Your task to perform on an android device: check google app version Image 0: 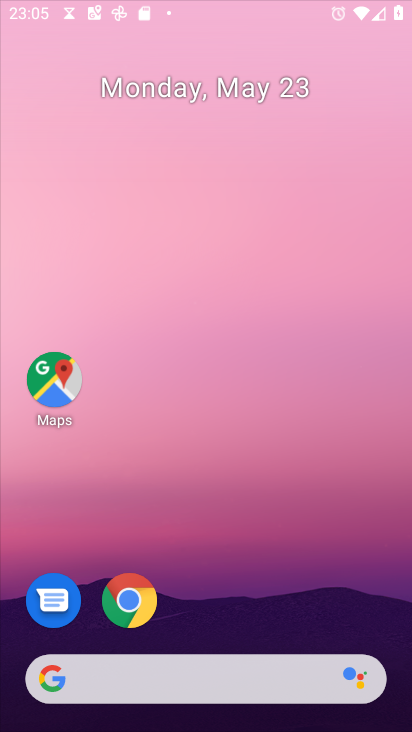
Step 0: drag from (191, 404) to (166, 109)
Your task to perform on an android device: check google app version Image 1: 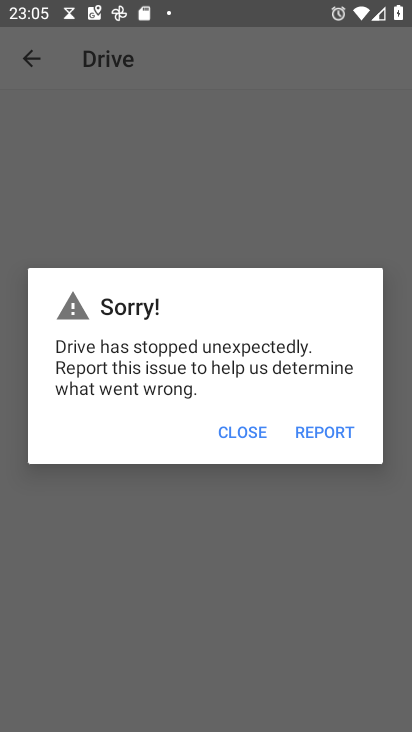
Step 1: press home button
Your task to perform on an android device: check google app version Image 2: 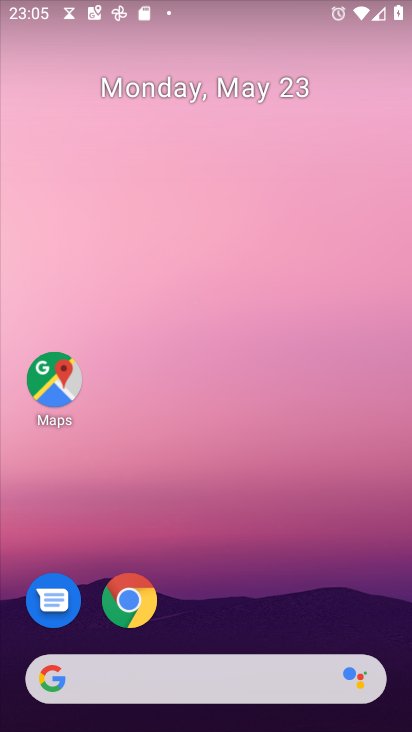
Step 2: drag from (204, 728) to (188, 59)
Your task to perform on an android device: check google app version Image 3: 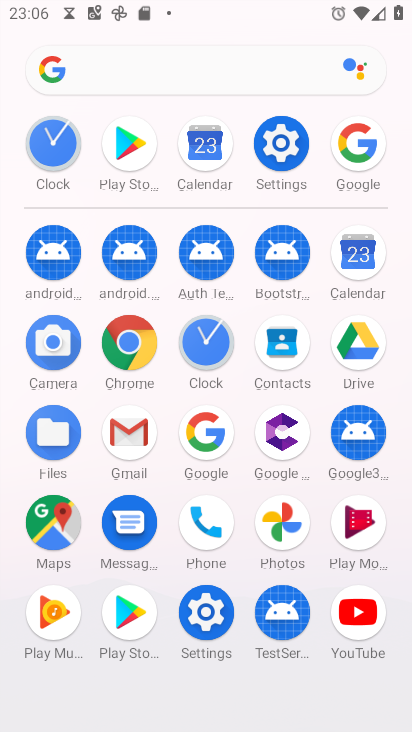
Step 3: click (205, 436)
Your task to perform on an android device: check google app version Image 4: 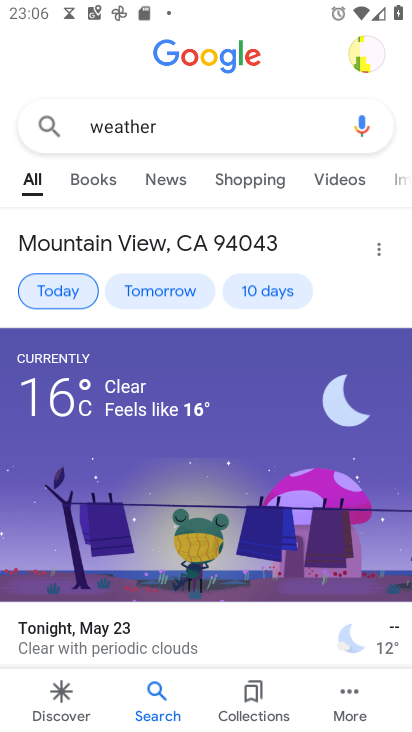
Step 4: click (350, 688)
Your task to perform on an android device: check google app version Image 5: 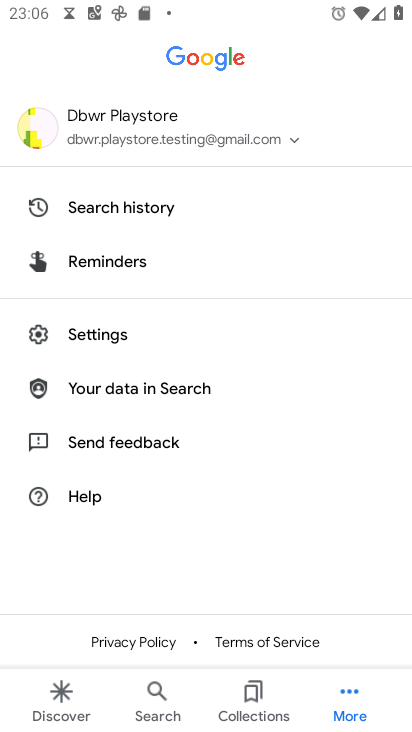
Step 5: click (95, 332)
Your task to perform on an android device: check google app version Image 6: 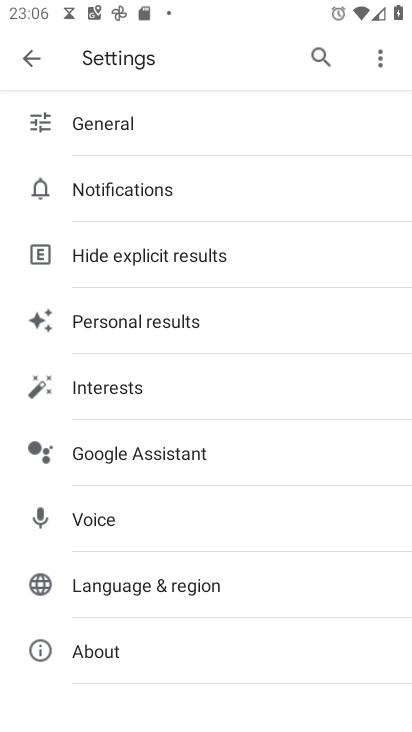
Step 6: click (102, 650)
Your task to perform on an android device: check google app version Image 7: 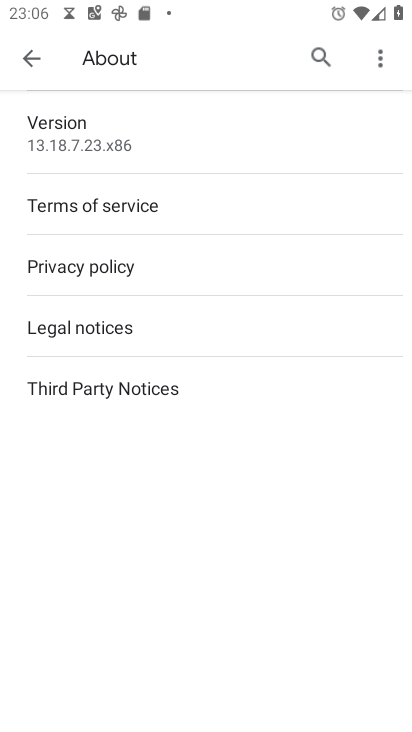
Step 7: task complete